Your task to perform on an android device: show emergency info Image 0: 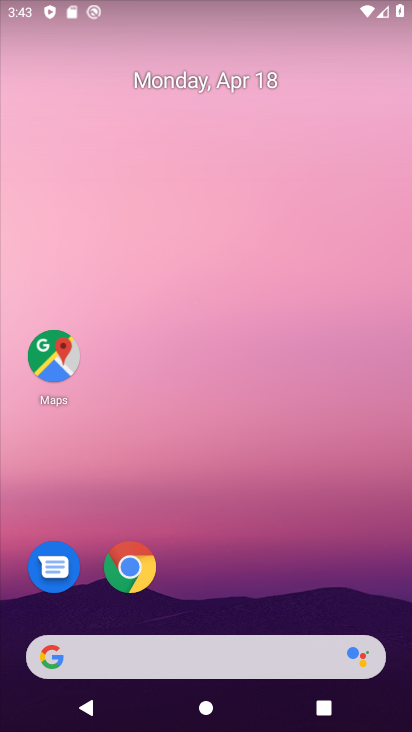
Step 0: drag from (242, 605) to (244, 119)
Your task to perform on an android device: show emergency info Image 1: 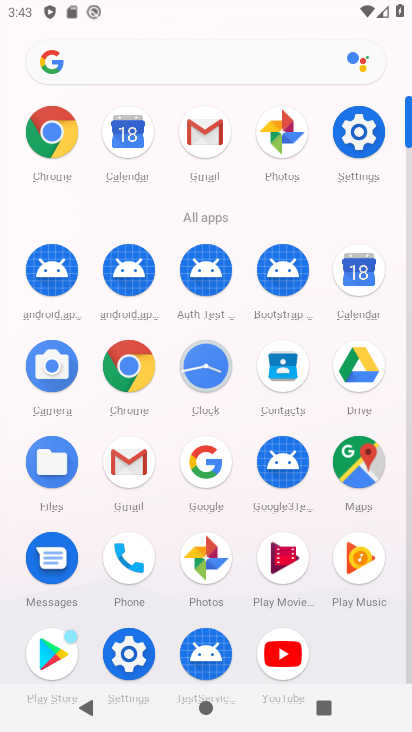
Step 1: click (369, 131)
Your task to perform on an android device: show emergency info Image 2: 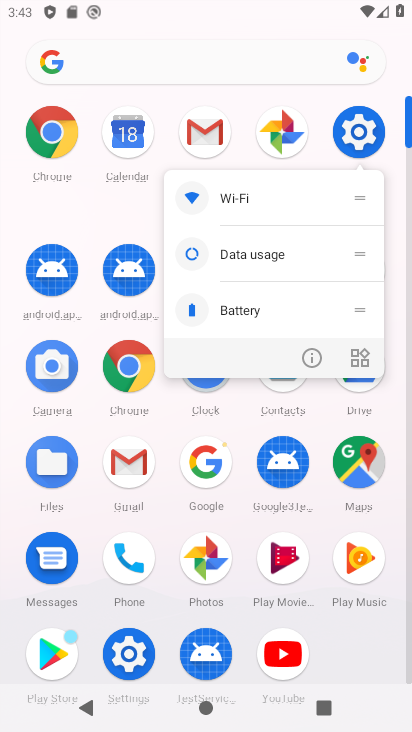
Step 2: click (352, 136)
Your task to perform on an android device: show emergency info Image 3: 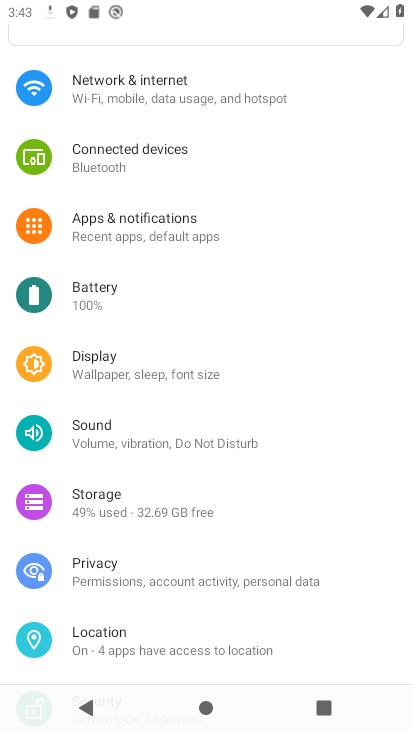
Step 3: drag from (228, 115) to (203, 547)
Your task to perform on an android device: show emergency info Image 4: 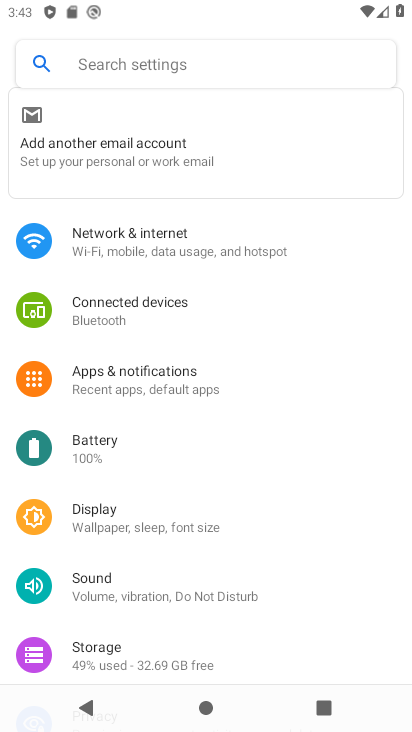
Step 4: click (176, 55)
Your task to perform on an android device: show emergency info Image 5: 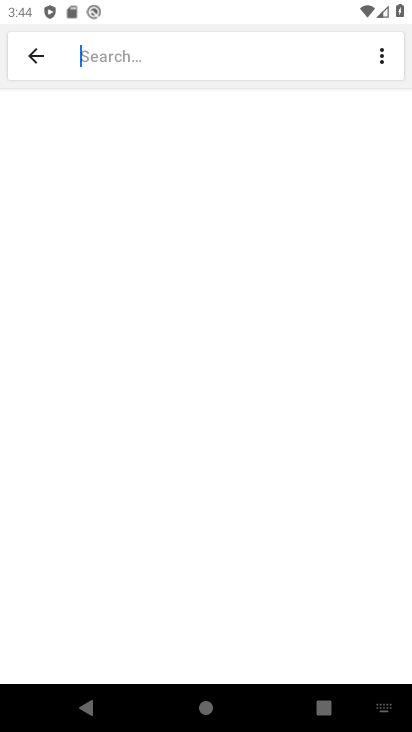
Step 5: type "emergency info"
Your task to perform on an android device: show emergency info Image 6: 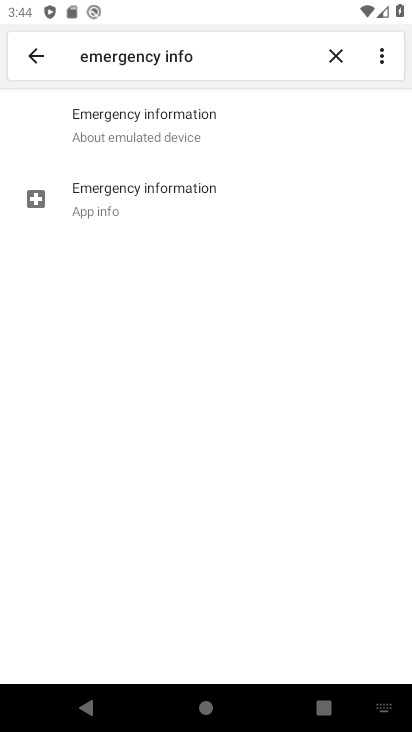
Step 6: click (206, 223)
Your task to perform on an android device: show emergency info Image 7: 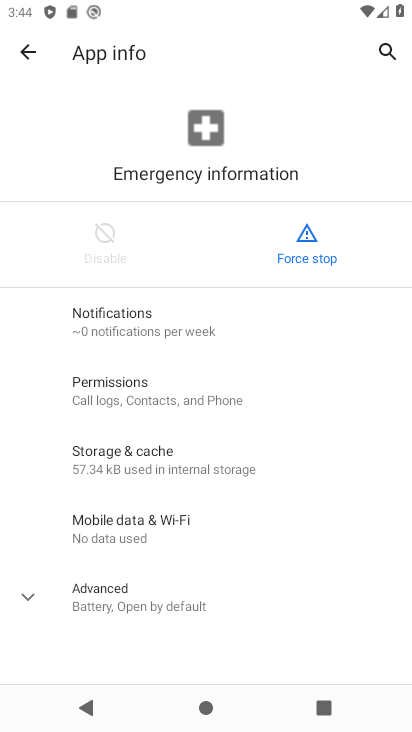
Step 7: task complete